Your task to perform on an android device: Toggle the flashlight Image 0: 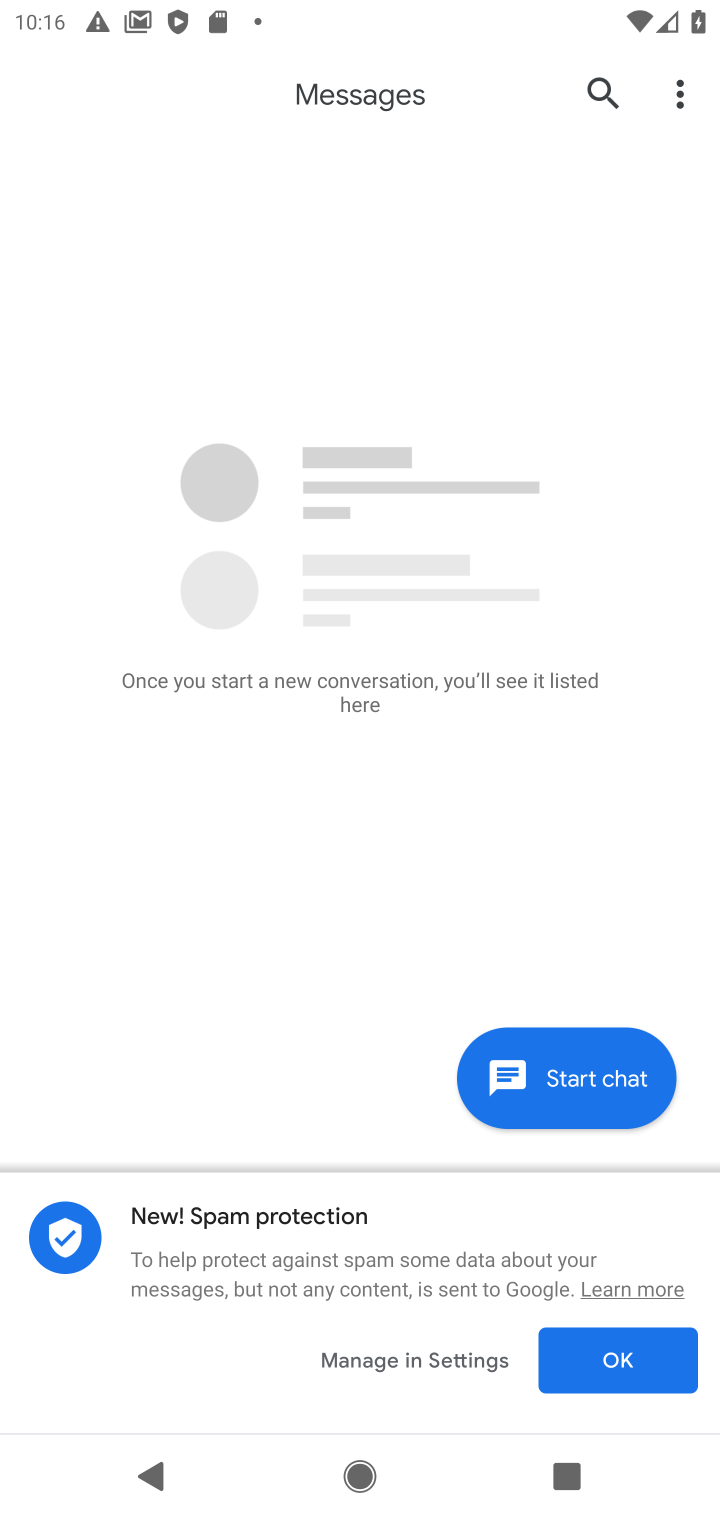
Step 0: press home button
Your task to perform on an android device: Toggle the flashlight Image 1: 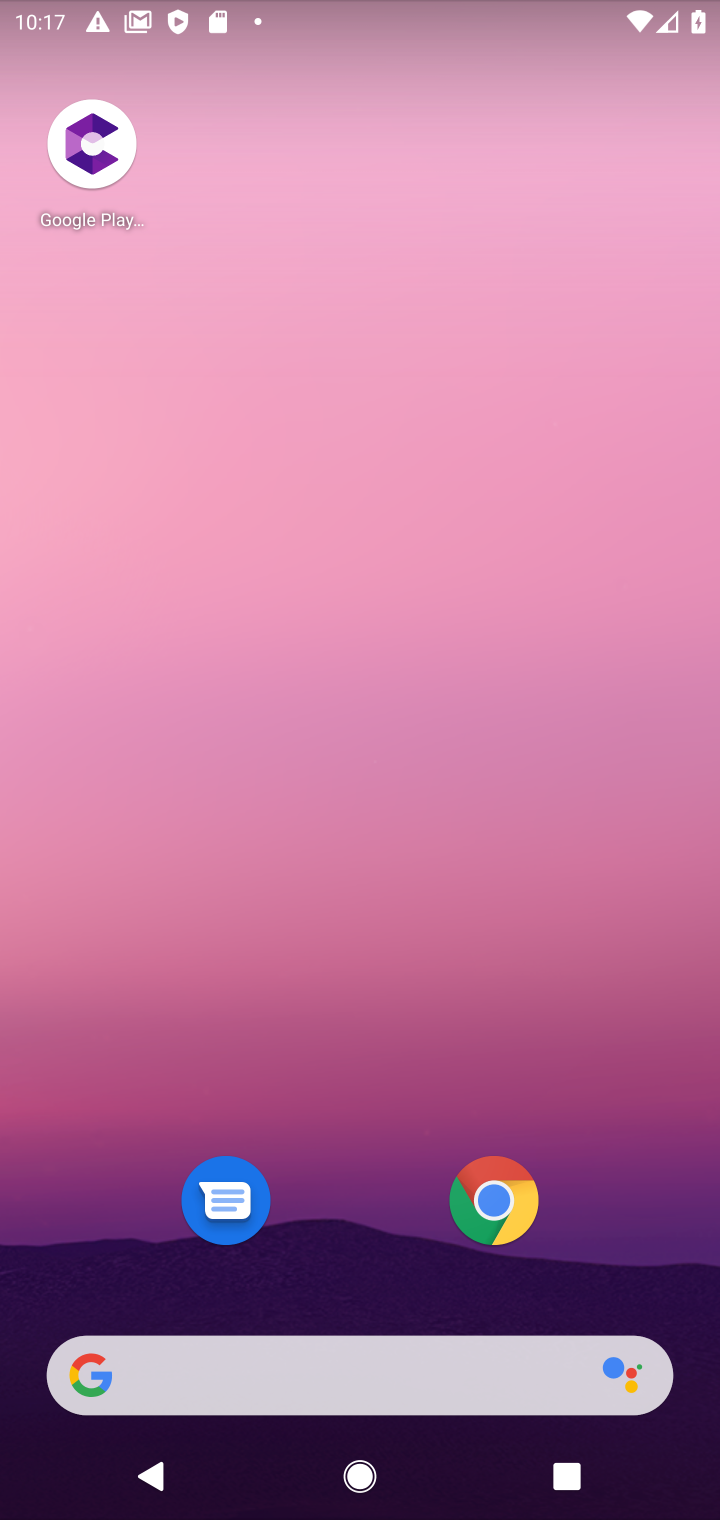
Step 1: drag from (421, 18) to (341, 1041)
Your task to perform on an android device: Toggle the flashlight Image 2: 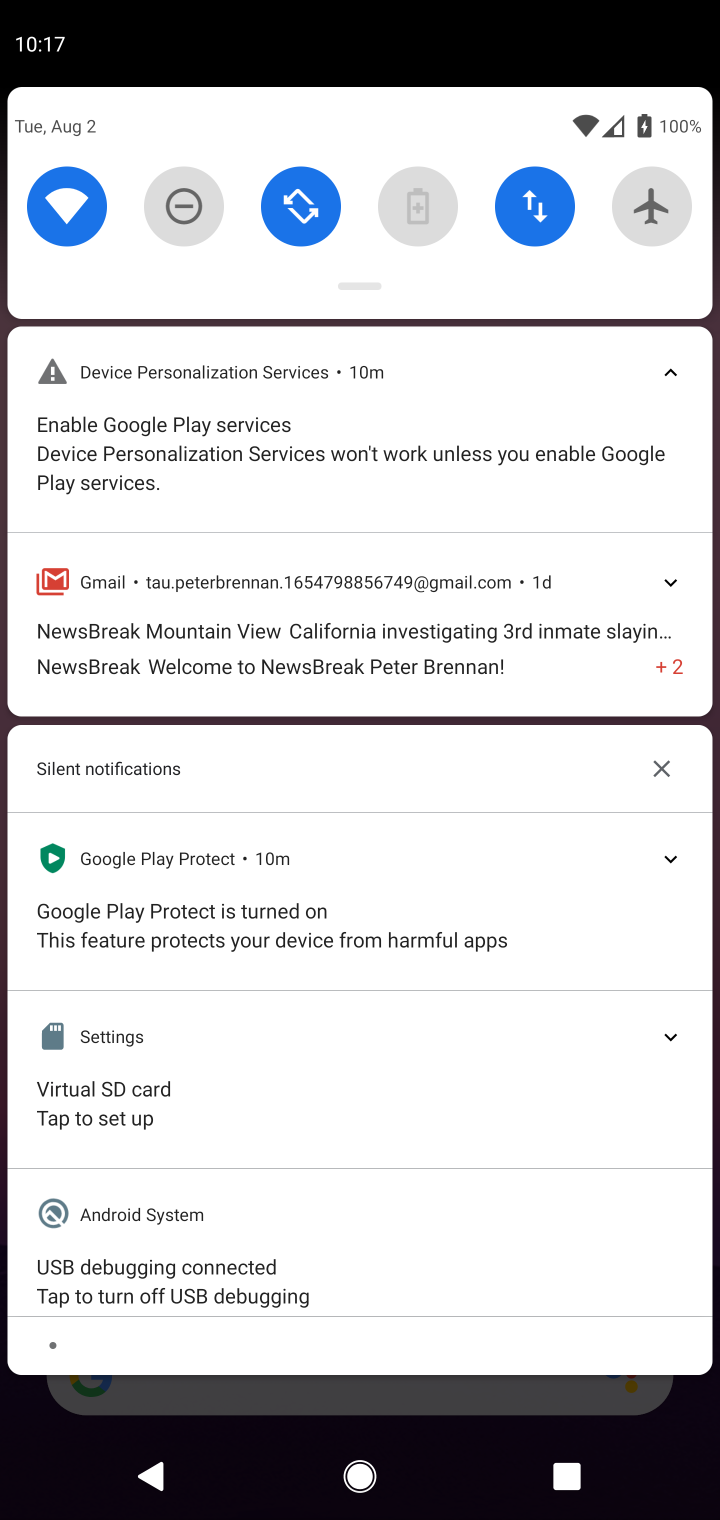
Step 2: drag from (362, 286) to (335, 917)
Your task to perform on an android device: Toggle the flashlight Image 3: 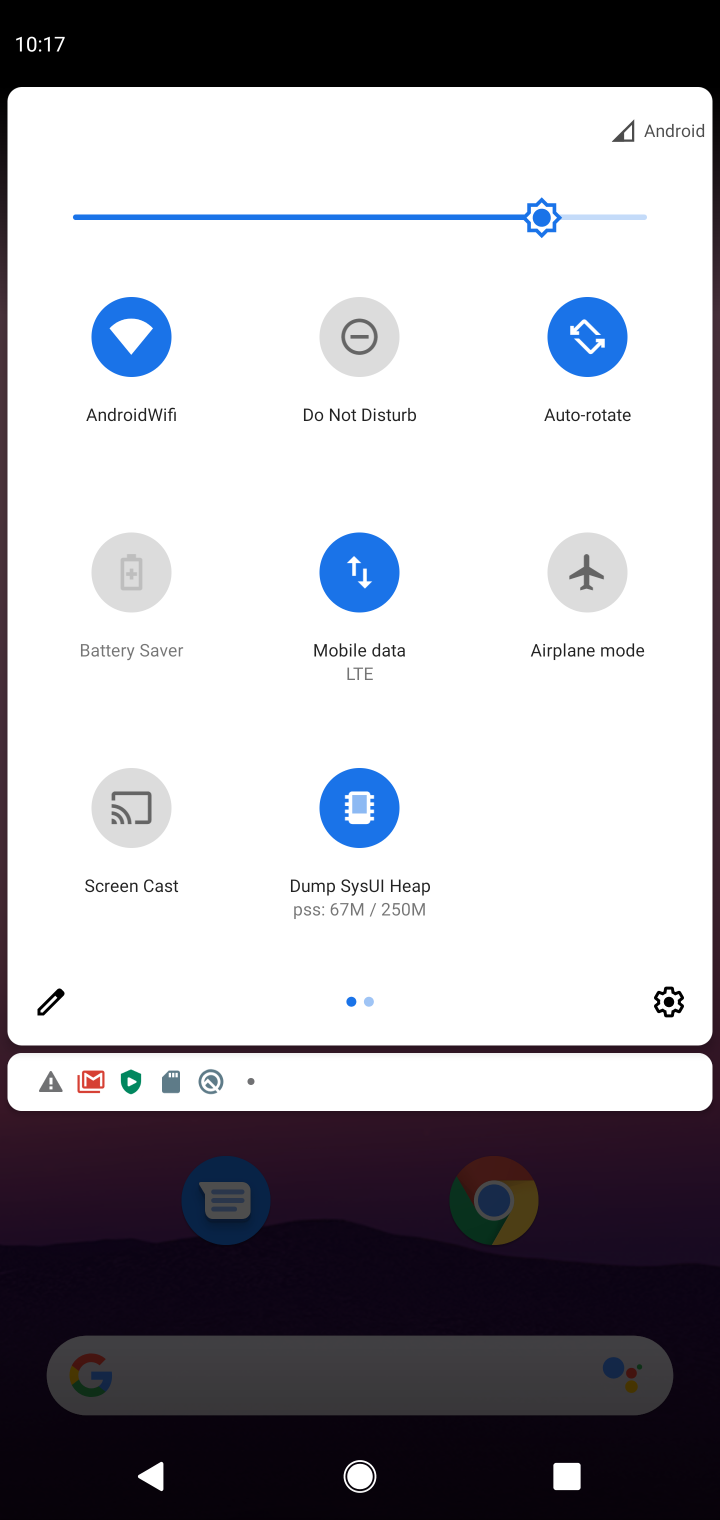
Step 3: click (44, 1004)
Your task to perform on an android device: Toggle the flashlight Image 4: 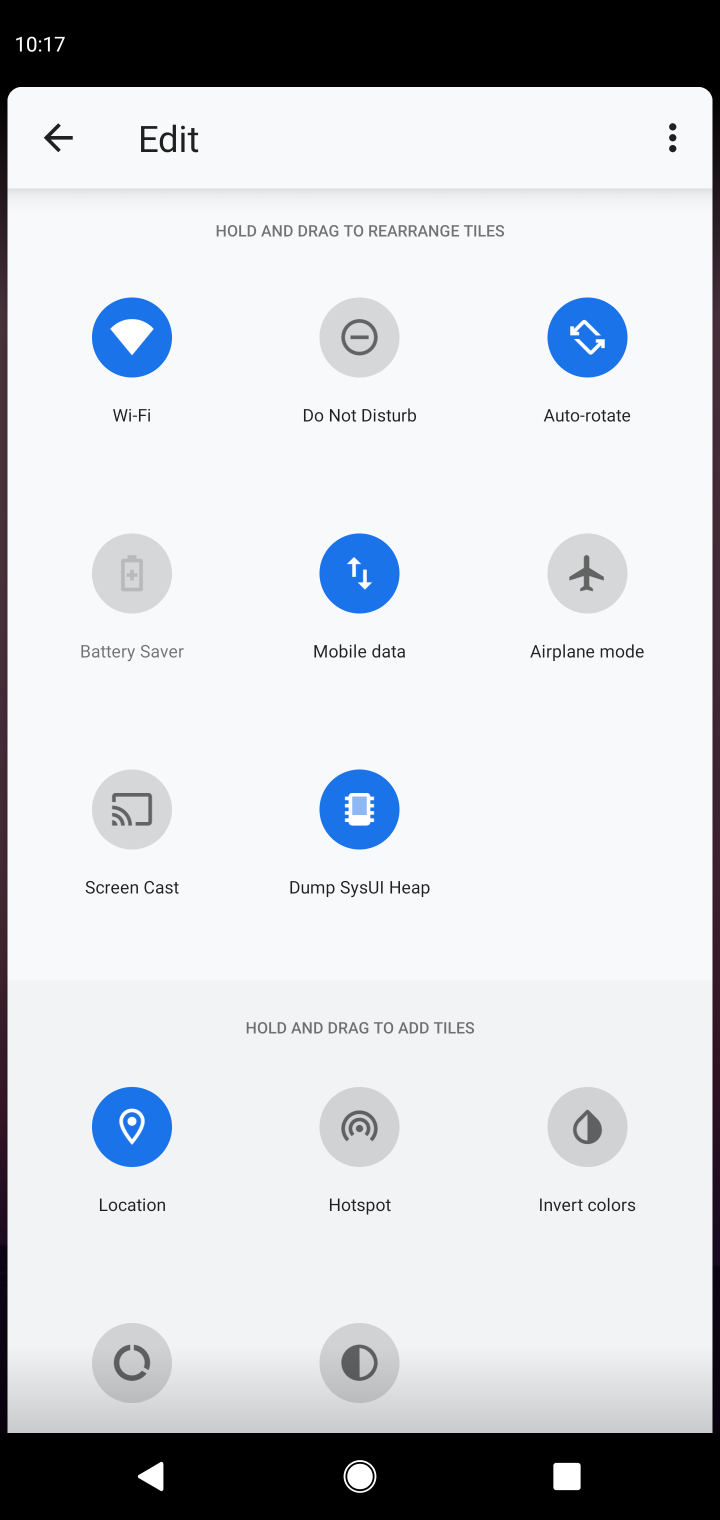
Step 4: task complete